Your task to perform on an android device: search for starred emails in the gmail app Image 0: 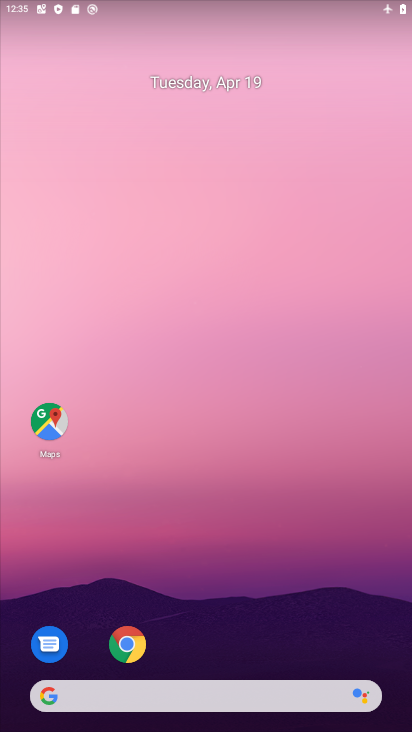
Step 0: drag from (266, 630) to (269, 43)
Your task to perform on an android device: search for starred emails in the gmail app Image 1: 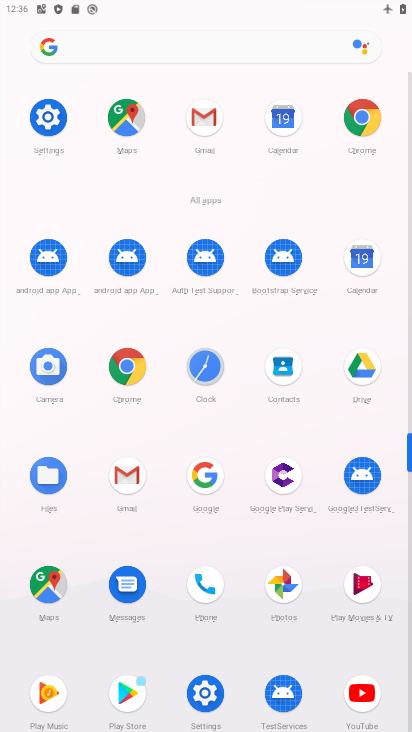
Step 1: click (146, 480)
Your task to perform on an android device: search for starred emails in the gmail app Image 2: 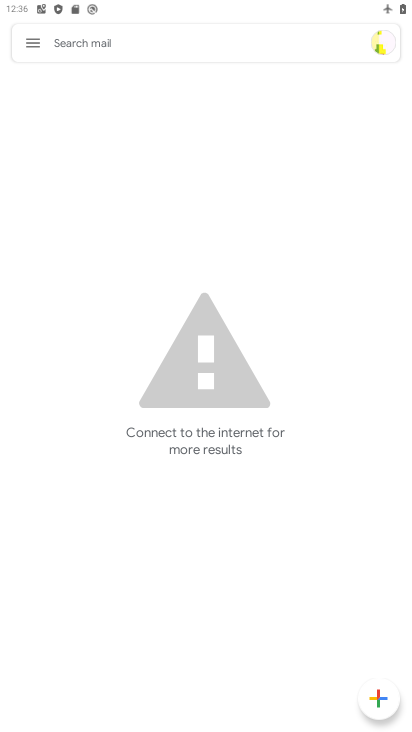
Step 2: click (25, 54)
Your task to perform on an android device: search for starred emails in the gmail app Image 3: 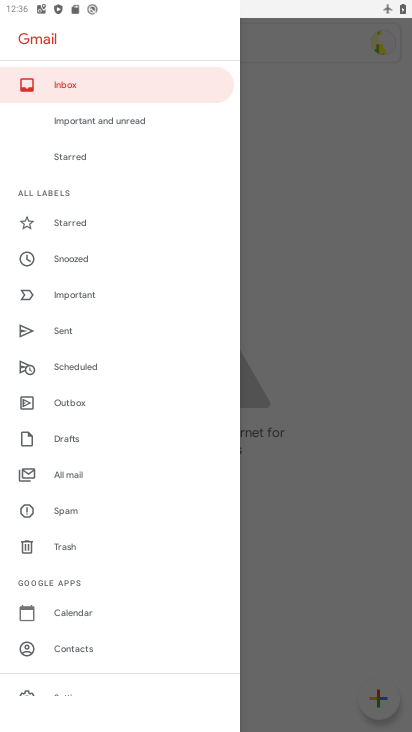
Step 3: click (85, 215)
Your task to perform on an android device: search for starred emails in the gmail app Image 4: 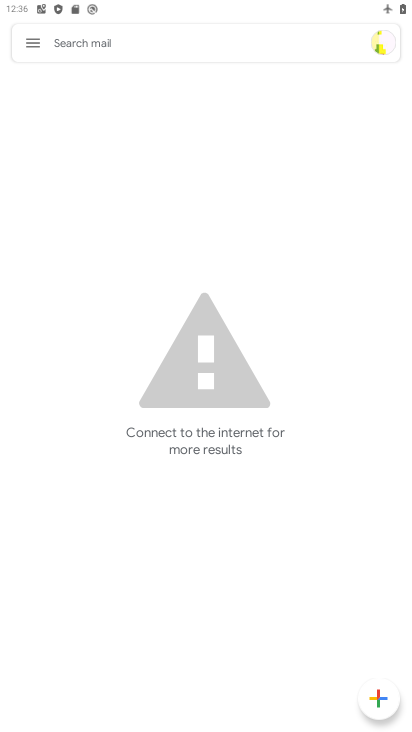
Step 4: task complete